Your task to perform on an android device: Open network settings Image 0: 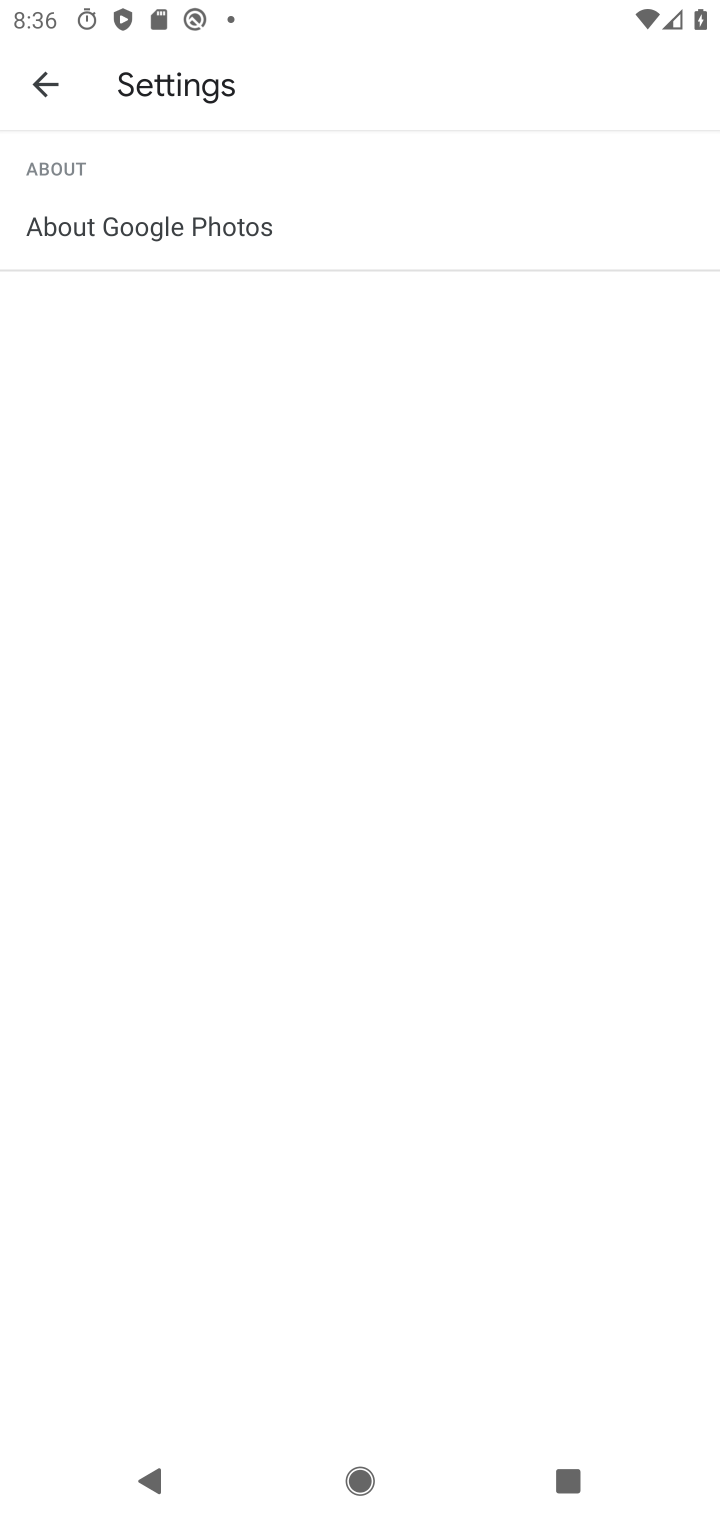
Step 0: press home button
Your task to perform on an android device: Open network settings Image 1: 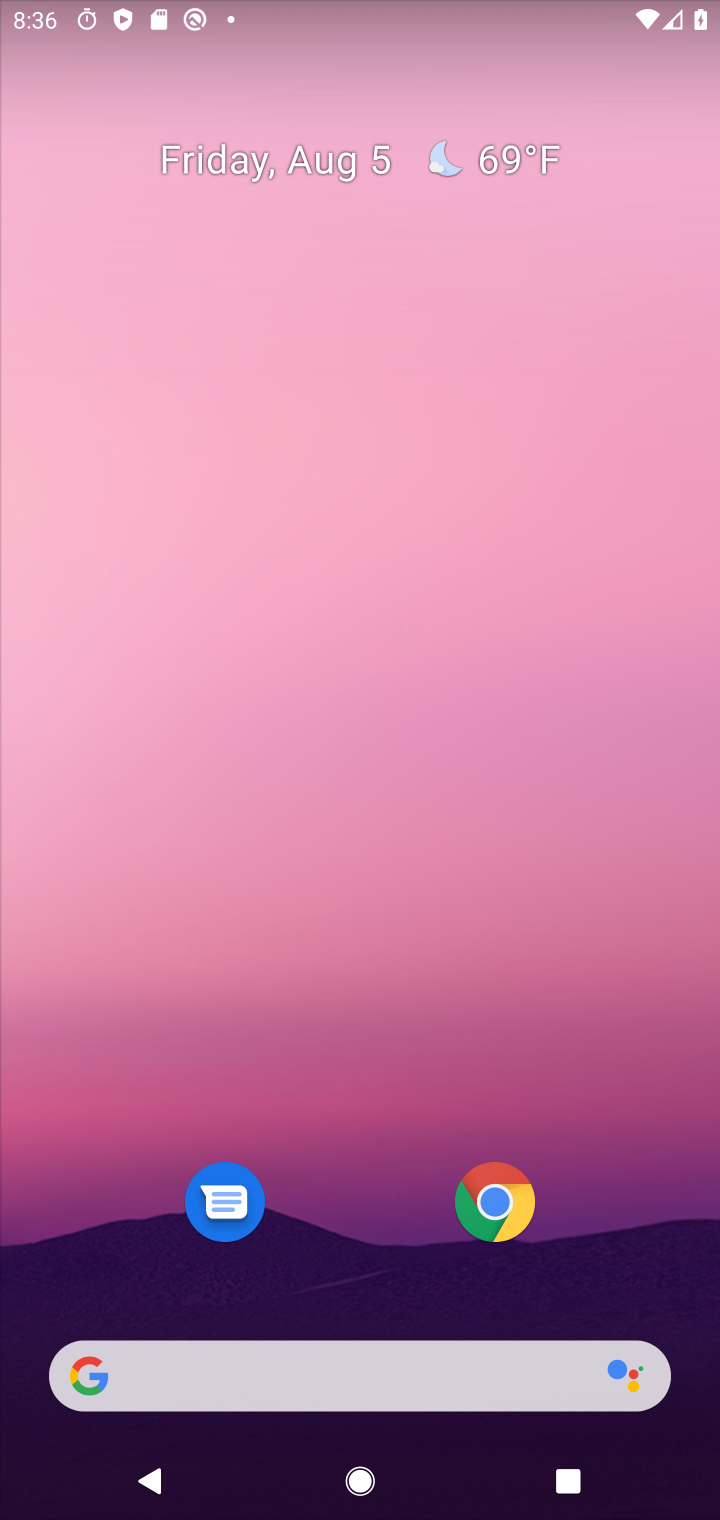
Step 1: drag from (354, 1097) to (341, 888)
Your task to perform on an android device: Open network settings Image 2: 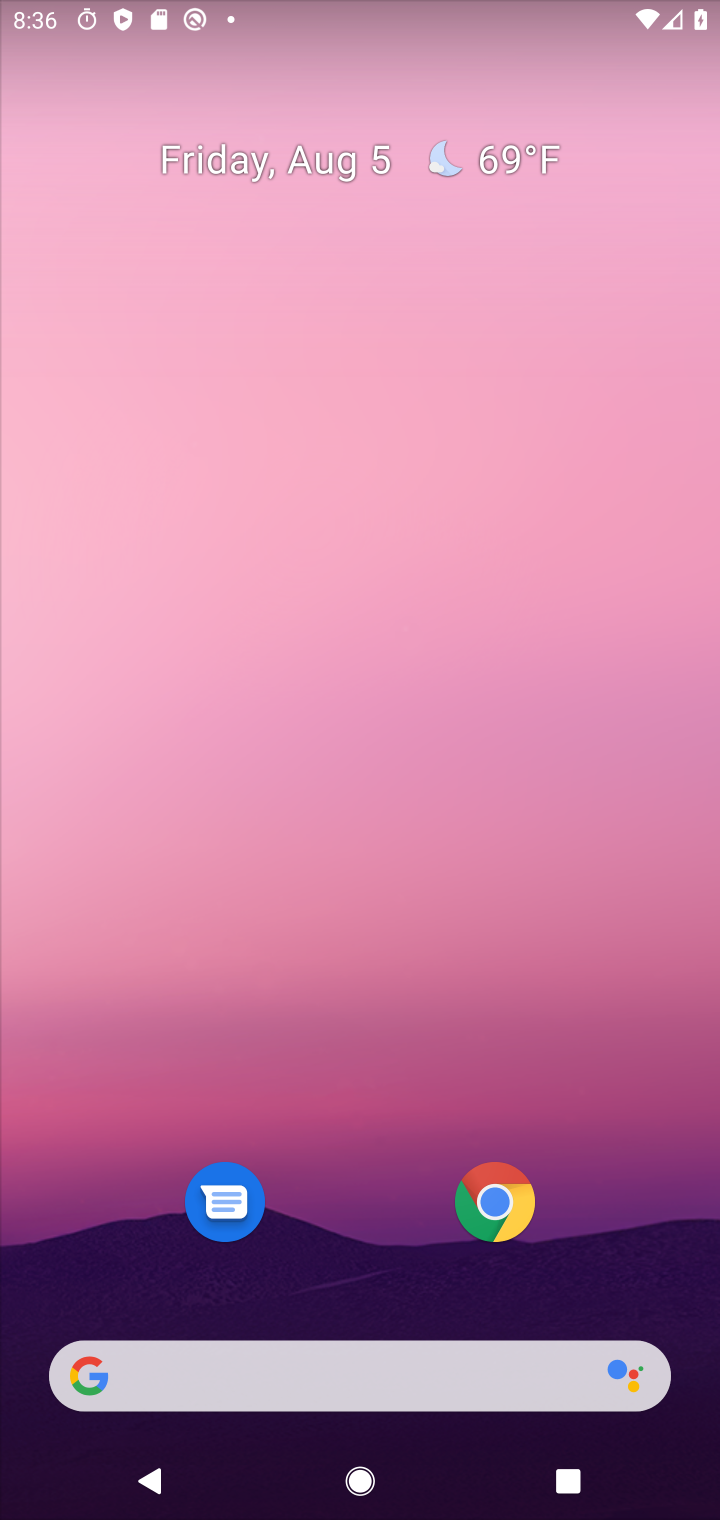
Step 2: drag from (378, 750) to (379, 125)
Your task to perform on an android device: Open network settings Image 3: 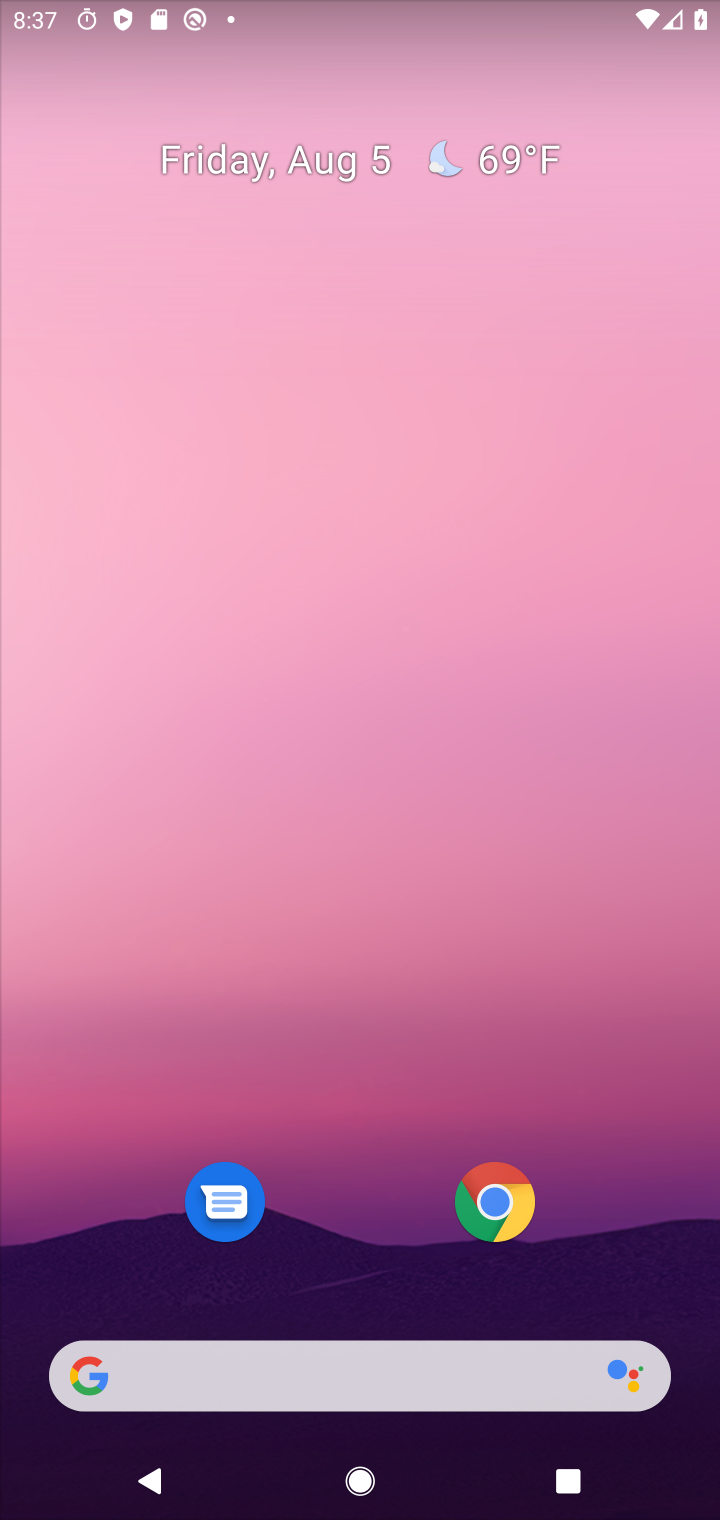
Step 3: drag from (377, 1161) to (370, 132)
Your task to perform on an android device: Open network settings Image 4: 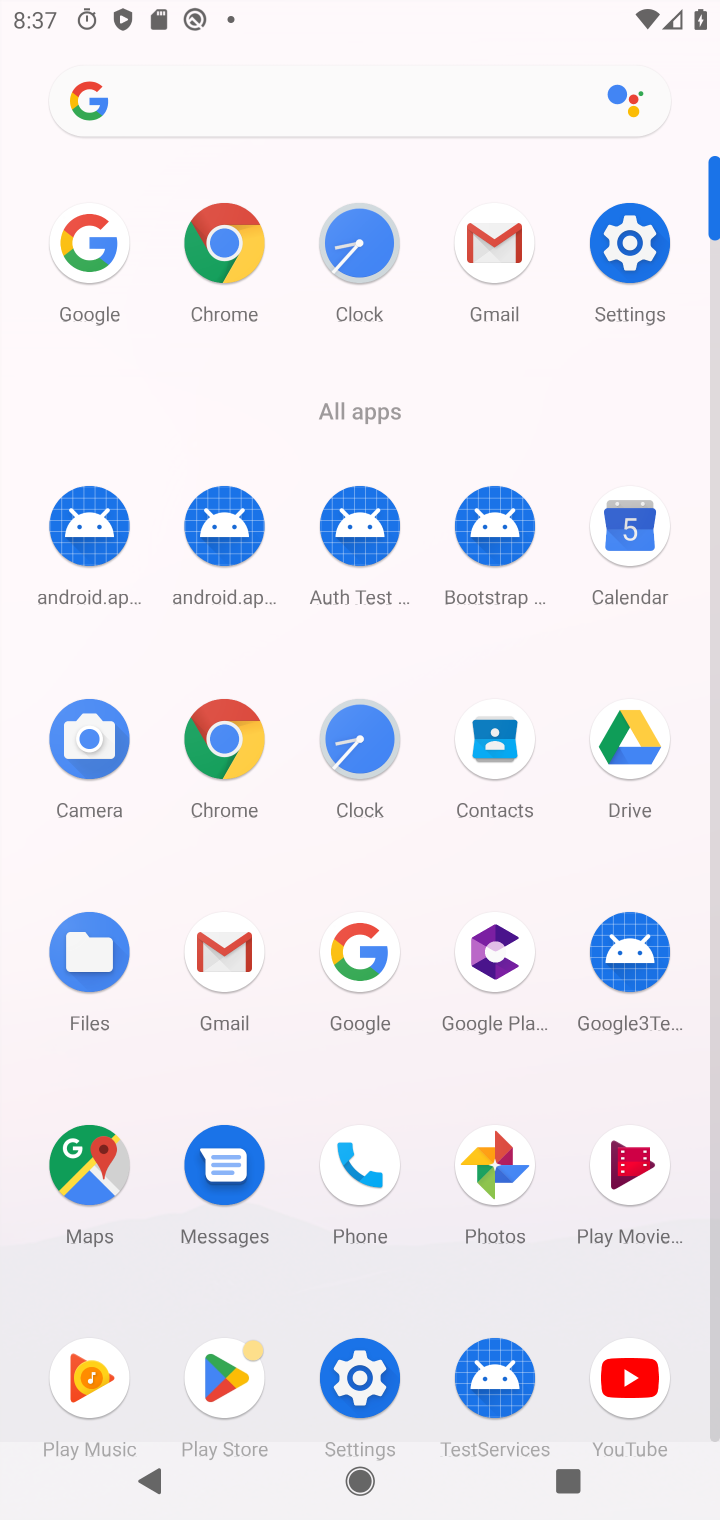
Step 4: click (617, 234)
Your task to perform on an android device: Open network settings Image 5: 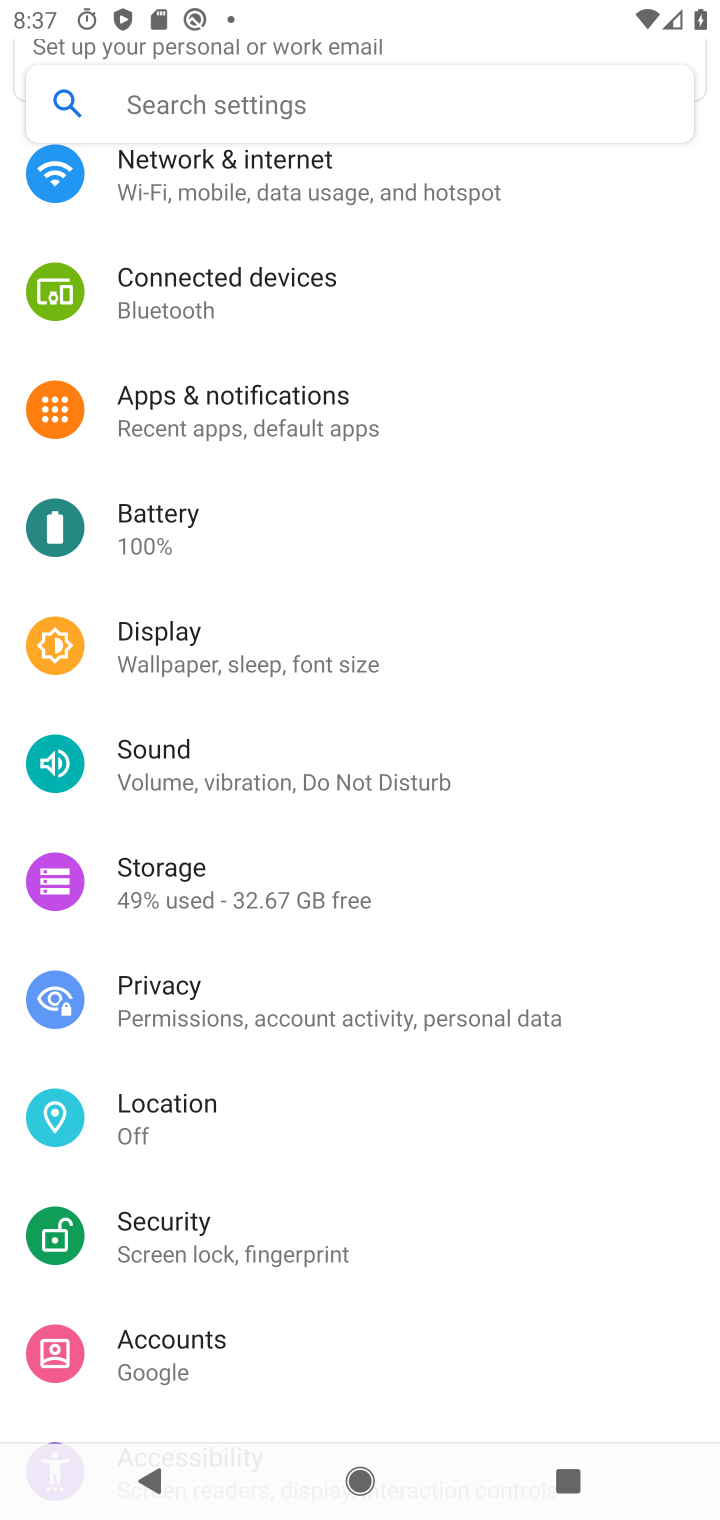
Step 5: click (328, 181)
Your task to perform on an android device: Open network settings Image 6: 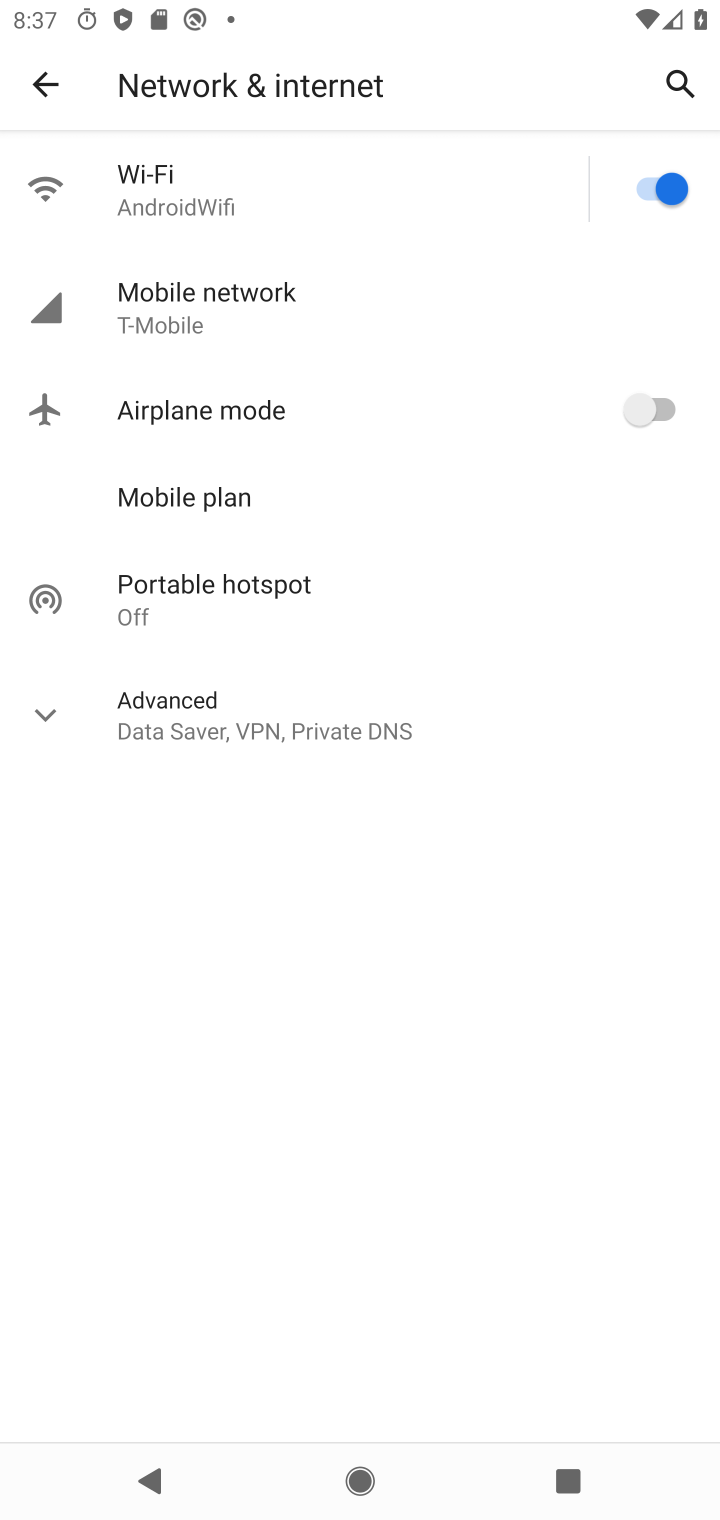
Step 6: click (322, 297)
Your task to perform on an android device: Open network settings Image 7: 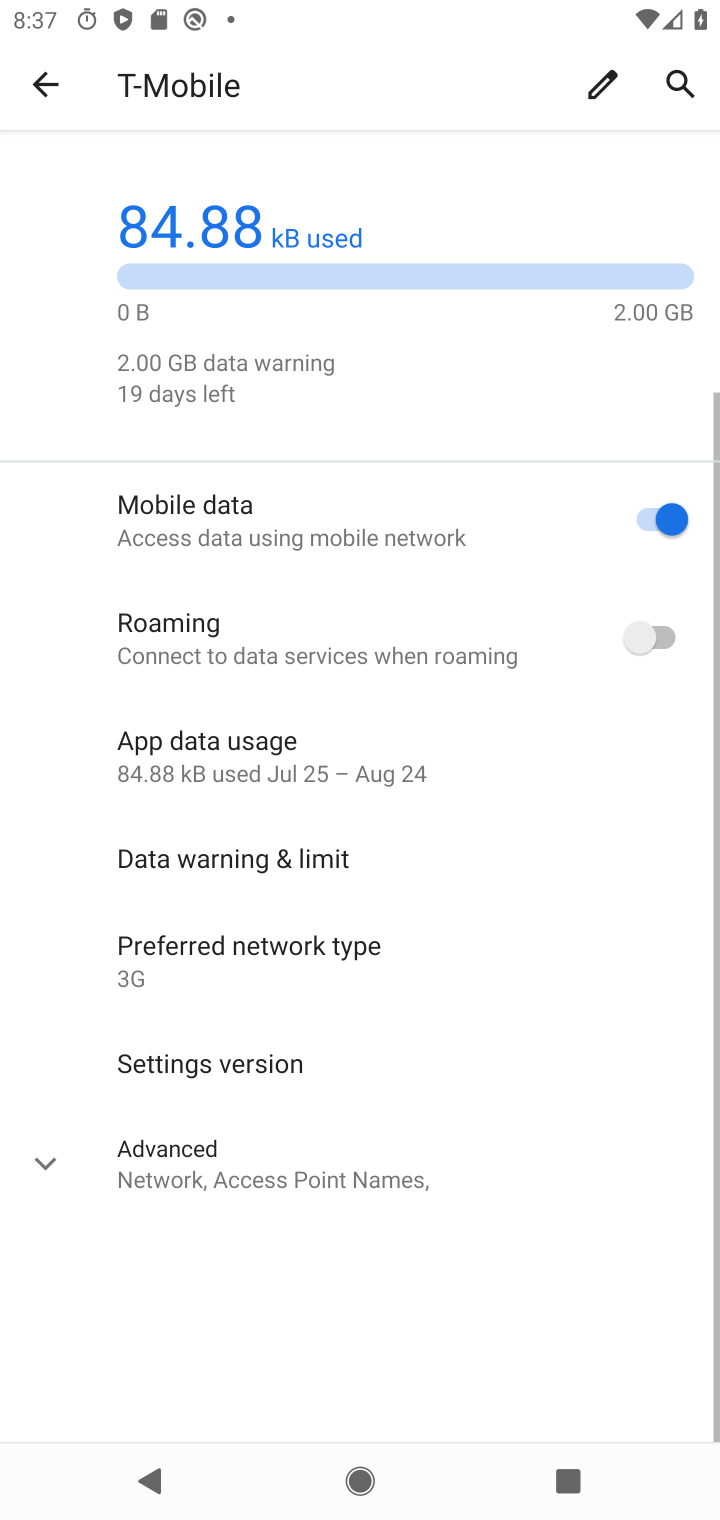
Step 7: task complete